Your task to perform on an android device: all mails in gmail Image 0: 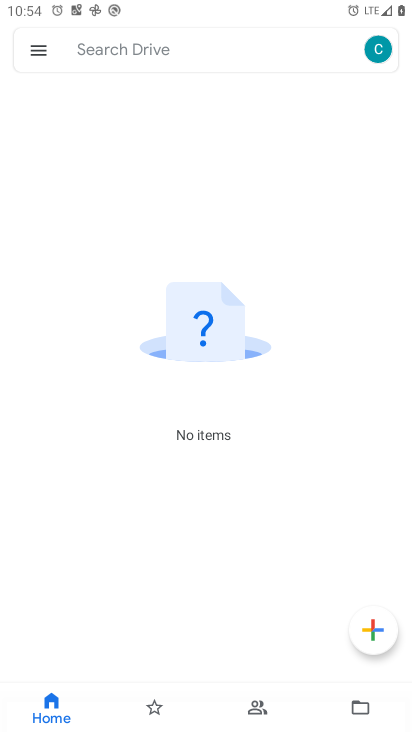
Step 0: press home button
Your task to perform on an android device: all mails in gmail Image 1: 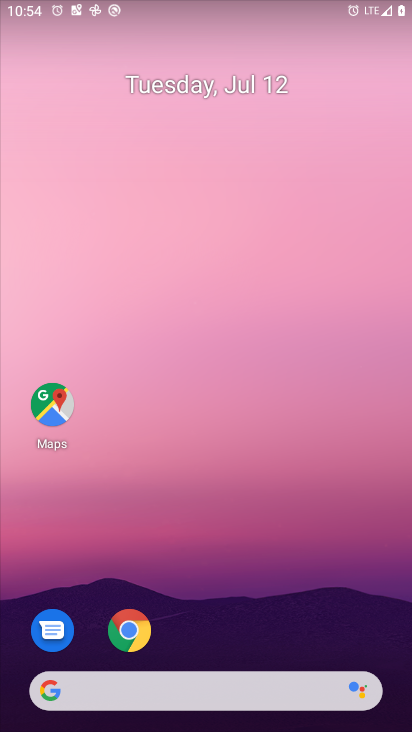
Step 1: drag from (224, 601) to (231, 34)
Your task to perform on an android device: all mails in gmail Image 2: 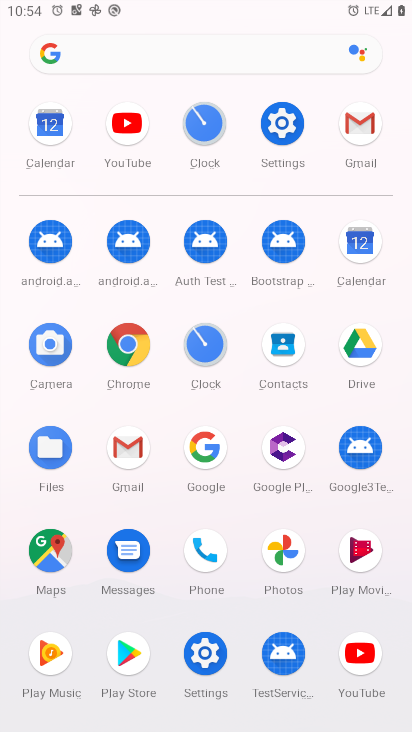
Step 2: click (363, 122)
Your task to perform on an android device: all mails in gmail Image 3: 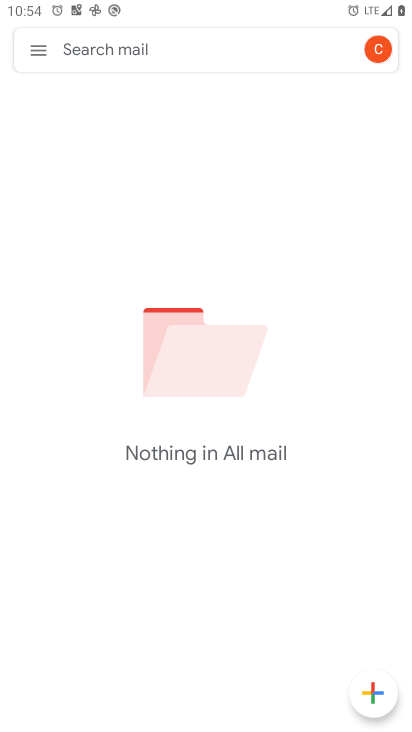
Step 3: click (38, 43)
Your task to perform on an android device: all mails in gmail Image 4: 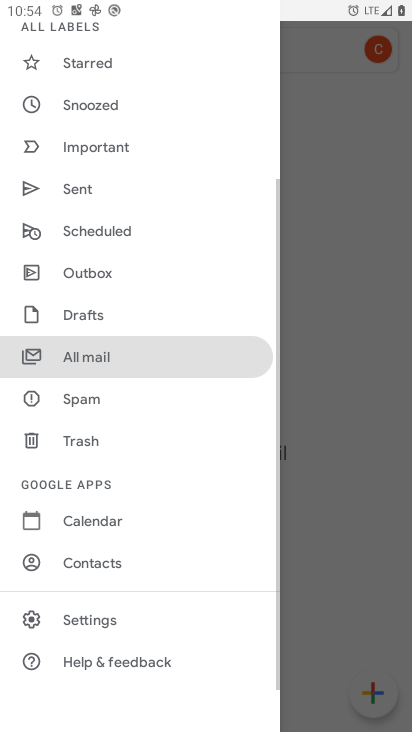
Step 4: click (102, 348)
Your task to perform on an android device: all mails in gmail Image 5: 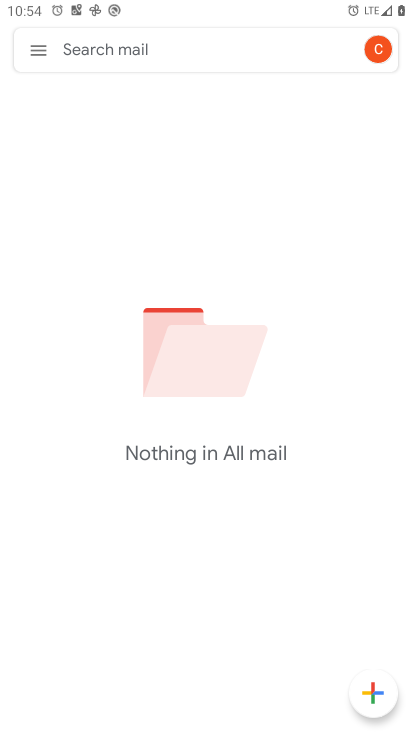
Step 5: task complete